Your task to perform on an android device: Search for "bose soundsport free" on newegg.com, select the first entry, add it to the cart, then select checkout. Image 0: 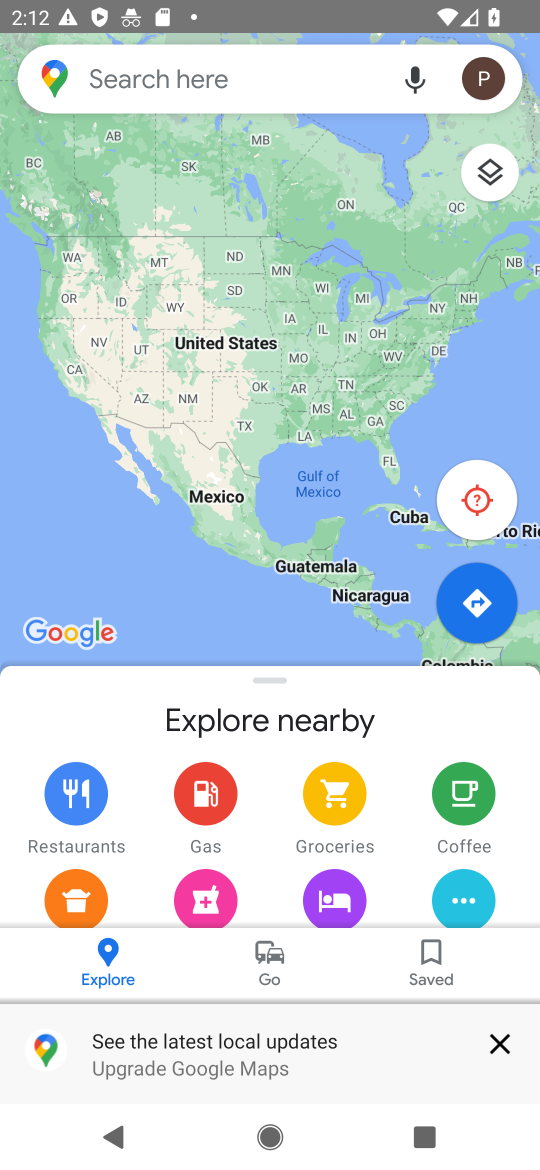
Step 0: press home button
Your task to perform on an android device: Search for "bose soundsport free" on newegg.com, select the first entry, add it to the cart, then select checkout. Image 1: 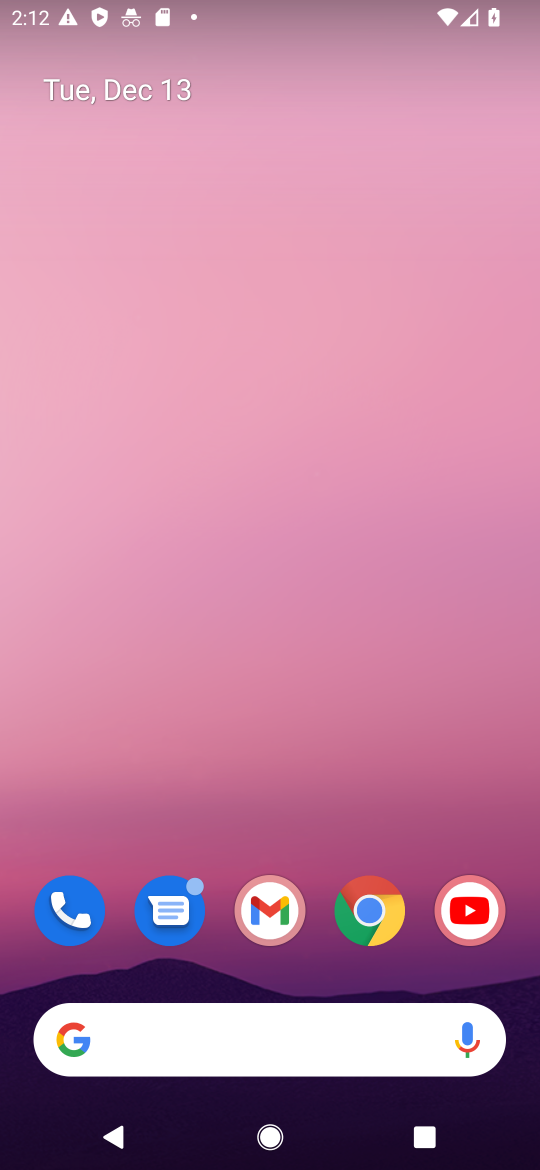
Step 1: click (374, 900)
Your task to perform on an android device: Search for "bose soundsport free" on newegg.com, select the first entry, add it to the cart, then select checkout. Image 2: 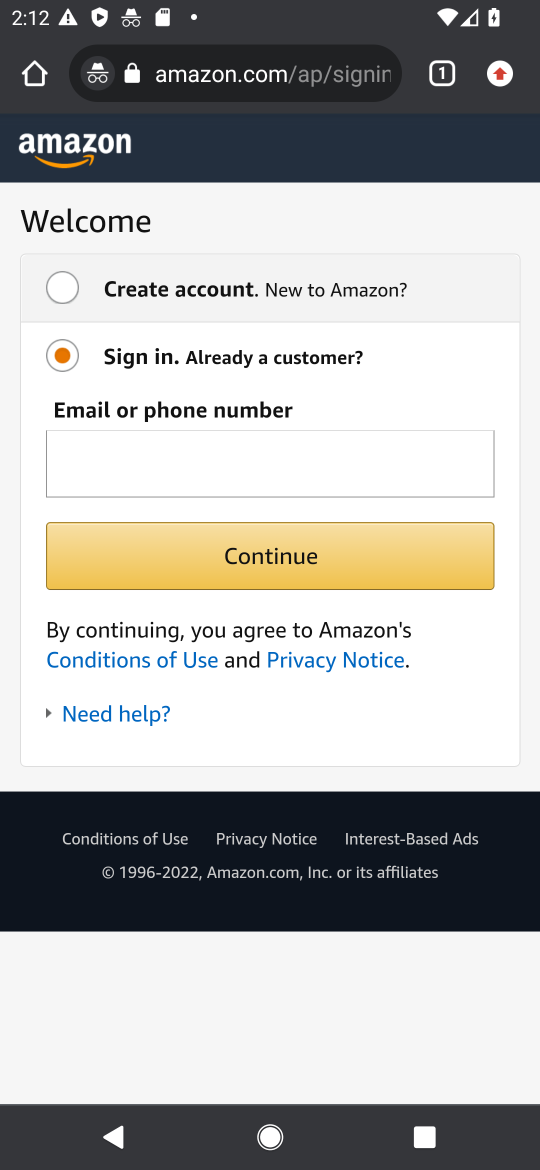
Step 2: click (268, 92)
Your task to perform on an android device: Search for "bose soundsport free" on newegg.com, select the first entry, add it to the cart, then select checkout. Image 3: 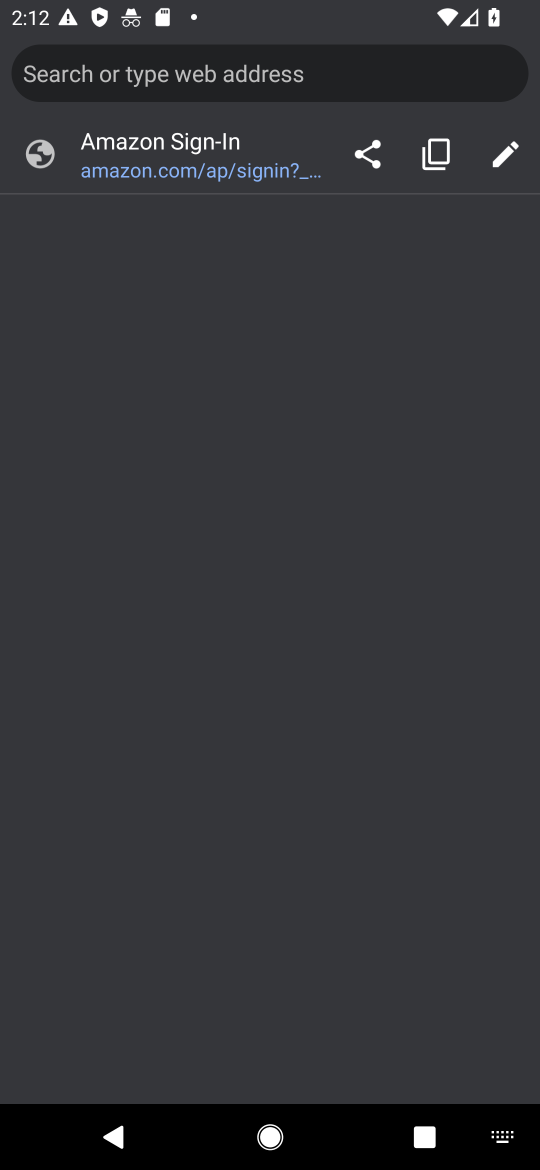
Step 3: type "NEWEGG"
Your task to perform on an android device: Search for "bose soundsport free" on newegg.com, select the first entry, add it to the cart, then select checkout. Image 4: 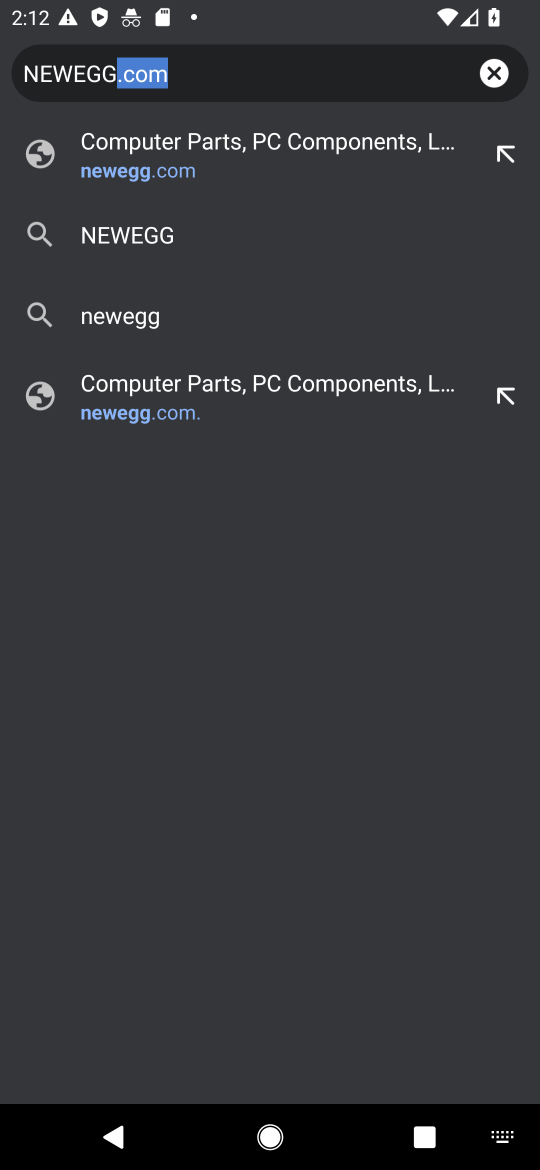
Step 4: click (192, 147)
Your task to perform on an android device: Search for "bose soundsport free" on newegg.com, select the first entry, add it to the cart, then select checkout. Image 5: 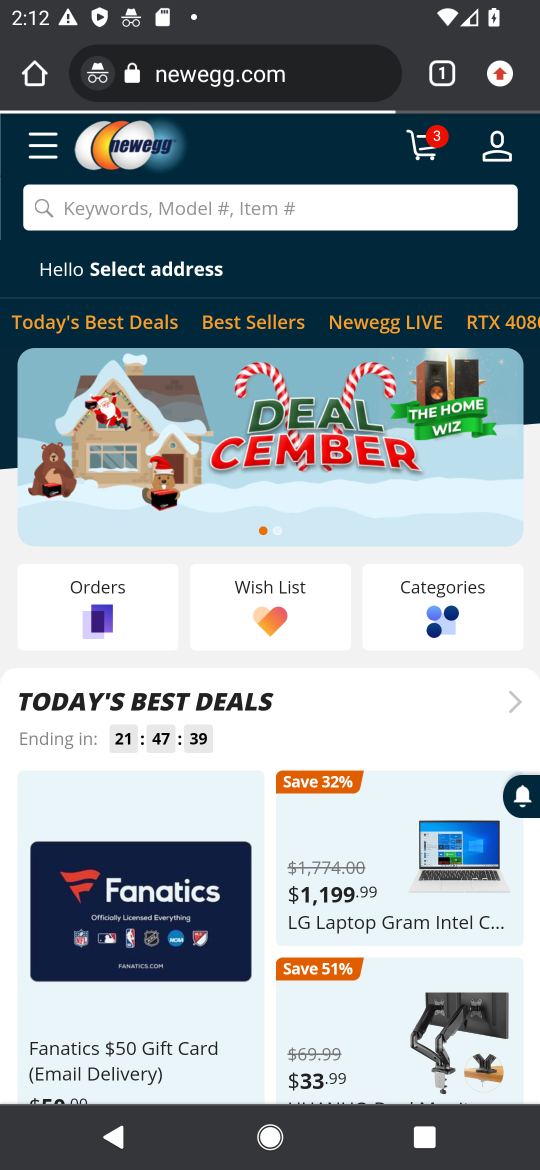
Step 5: click (281, 211)
Your task to perform on an android device: Search for "bose soundsport free" on newegg.com, select the first entry, add it to the cart, then select checkout. Image 6: 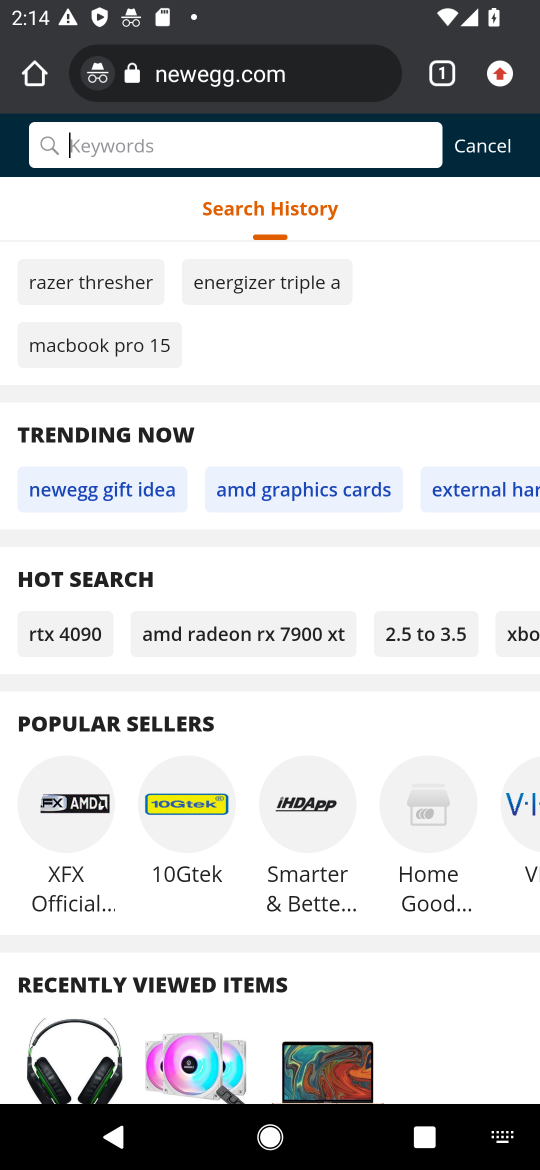
Step 6: type "BOSE SOUNDSPORT FREE"
Your task to perform on an android device: Search for "bose soundsport free" on newegg.com, select the first entry, add it to the cart, then select checkout. Image 7: 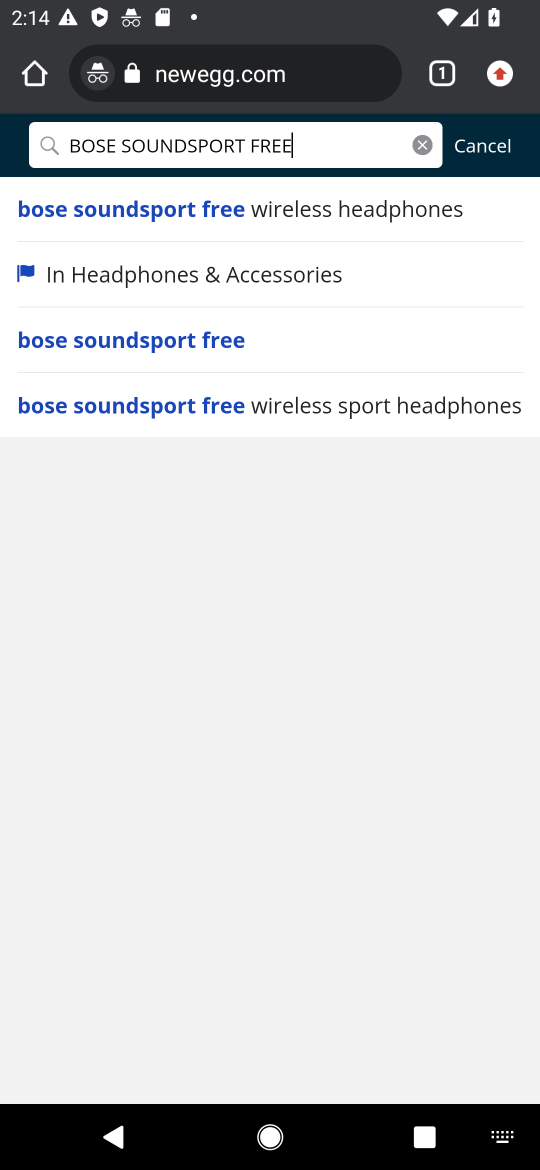
Step 7: click (355, 204)
Your task to perform on an android device: Search for "bose soundsport free" on newegg.com, select the first entry, add it to the cart, then select checkout. Image 8: 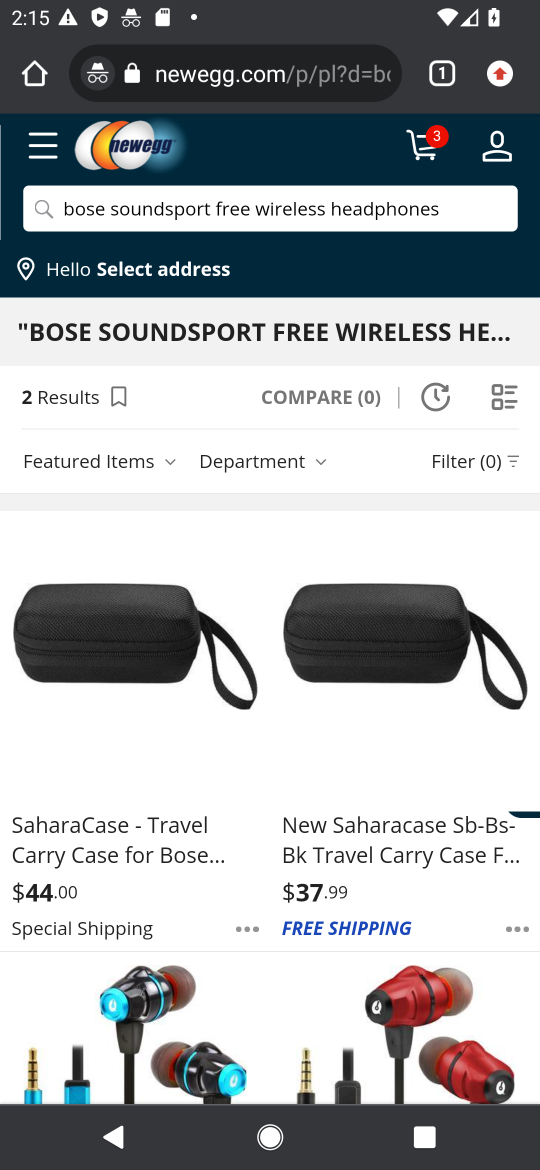
Step 8: click (86, 661)
Your task to perform on an android device: Search for "bose soundsport free" on newegg.com, select the first entry, add it to the cart, then select checkout. Image 9: 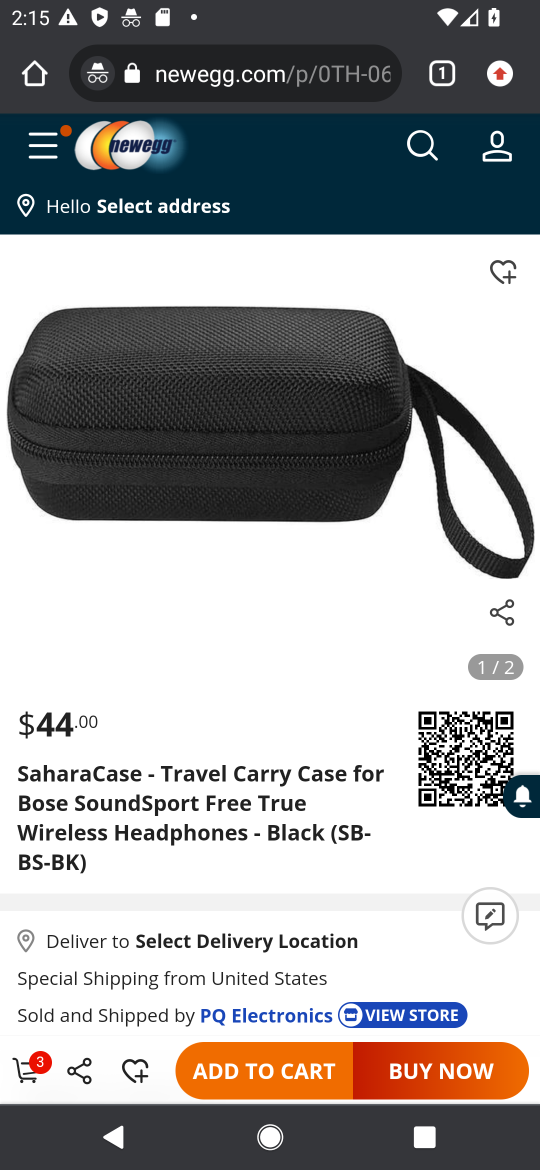
Step 9: click (234, 1076)
Your task to perform on an android device: Search for "bose soundsport free" on newegg.com, select the first entry, add it to the cart, then select checkout. Image 10: 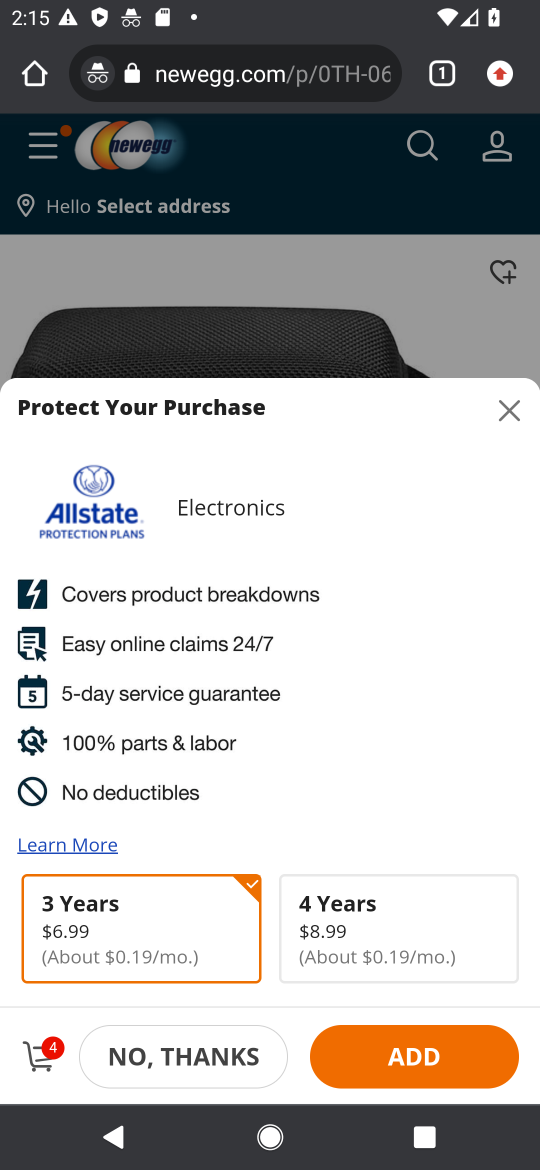
Step 10: click (45, 1060)
Your task to perform on an android device: Search for "bose soundsport free" on newegg.com, select the first entry, add it to the cart, then select checkout. Image 11: 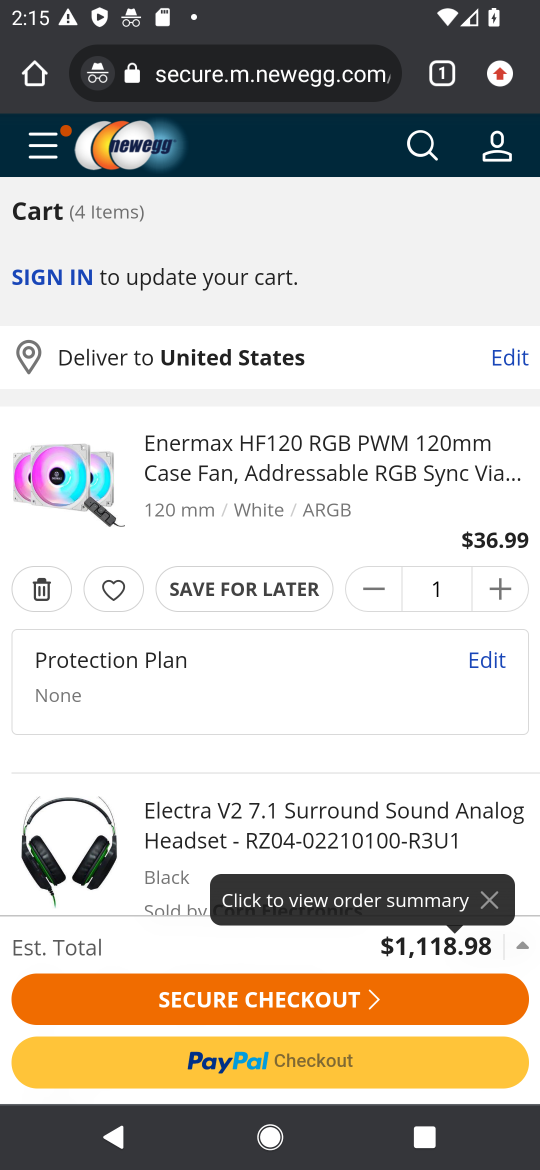
Step 11: click (272, 1008)
Your task to perform on an android device: Search for "bose soundsport free" on newegg.com, select the first entry, add it to the cart, then select checkout. Image 12: 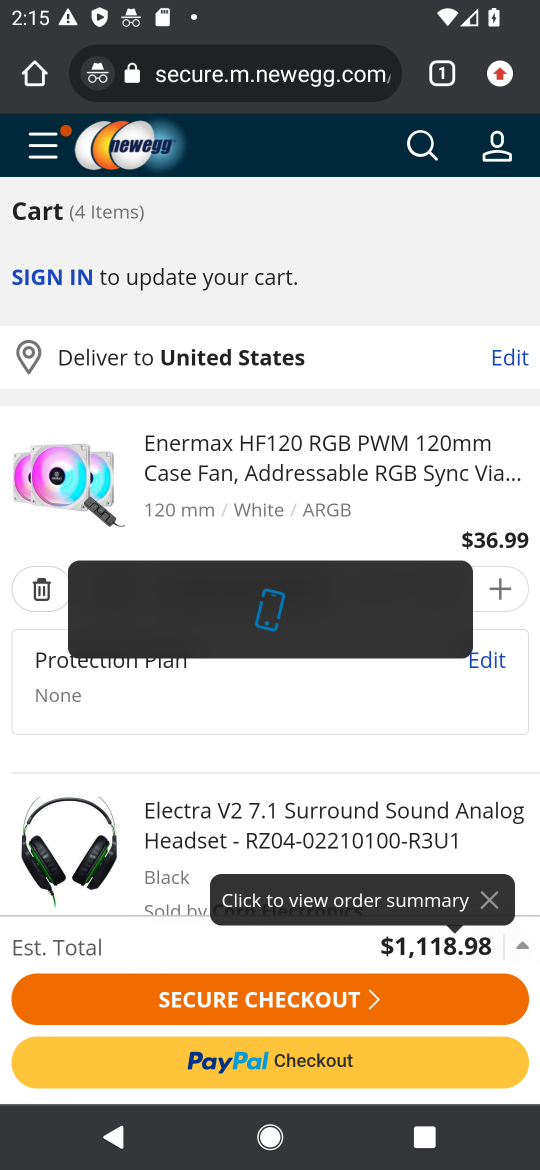
Step 12: task complete